Your task to perform on an android device: open chrome and create a bookmark for the current page Image 0: 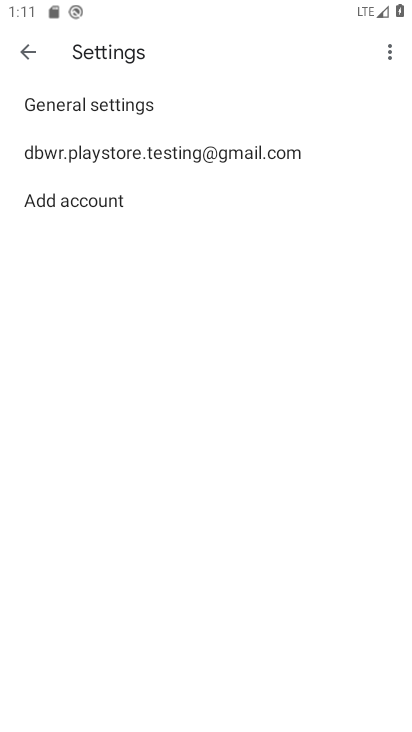
Step 0: press home button
Your task to perform on an android device: open chrome and create a bookmark for the current page Image 1: 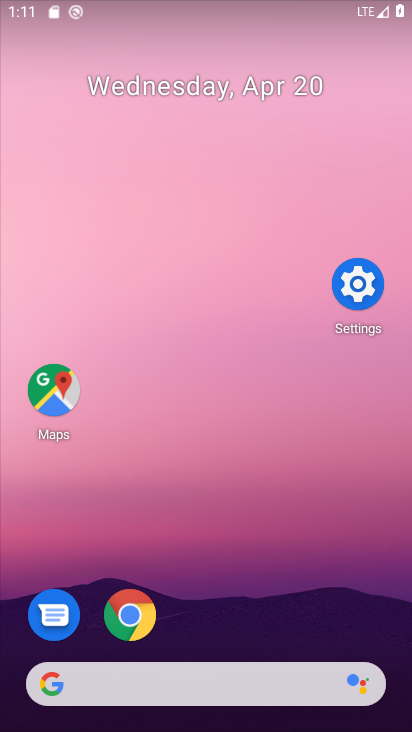
Step 1: click (133, 603)
Your task to perform on an android device: open chrome and create a bookmark for the current page Image 2: 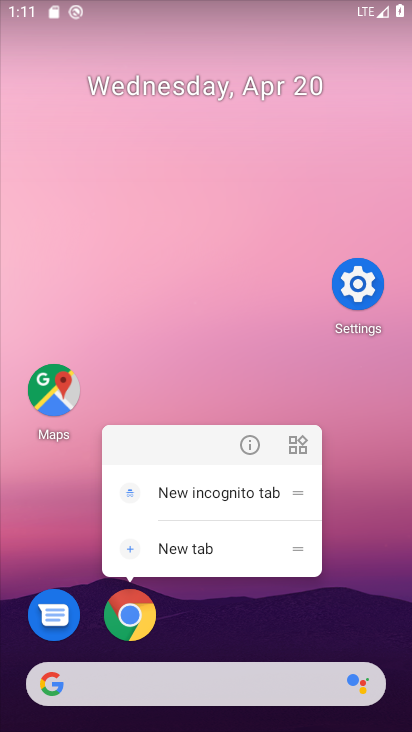
Step 2: click (248, 437)
Your task to perform on an android device: open chrome and create a bookmark for the current page Image 3: 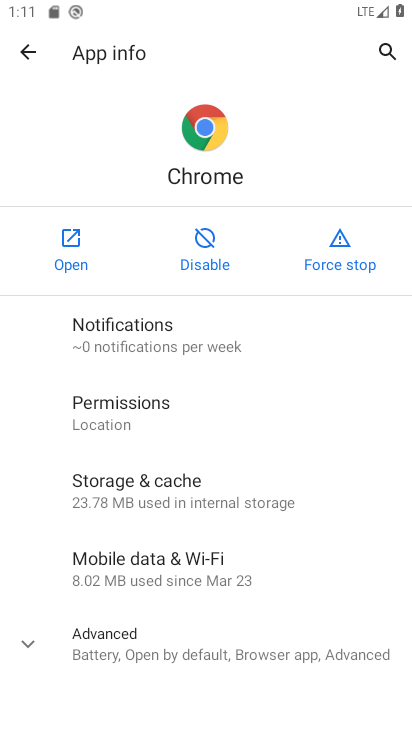
Step 3: click (83, 252)
Your task to perform on an android device: open chrome and create a bookmark for the current page Image 4: 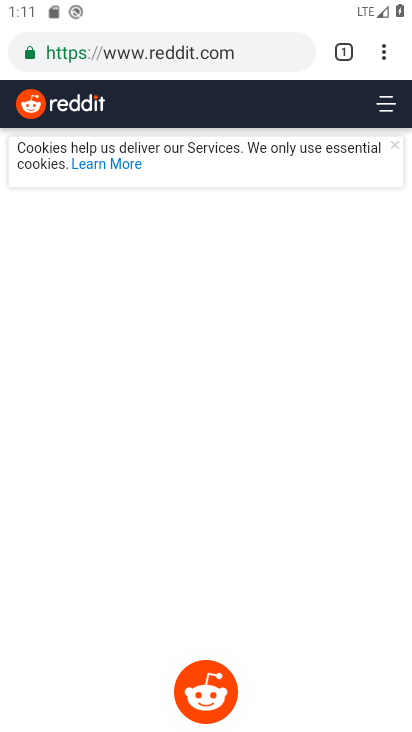
Step 4: click (386, 48)
Your task to perform on an android device: open chrome and create a bookmark for the current page Image 5: 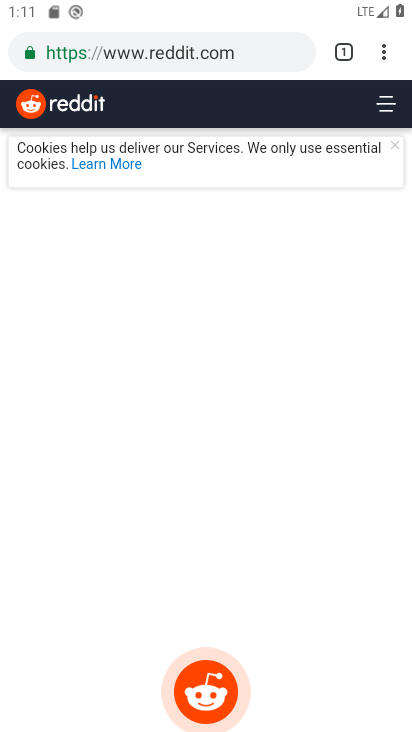
Step 5: click (391, 63)
Your task to perform on an android device: open chrome and create a bookmark for the current page Image 6: 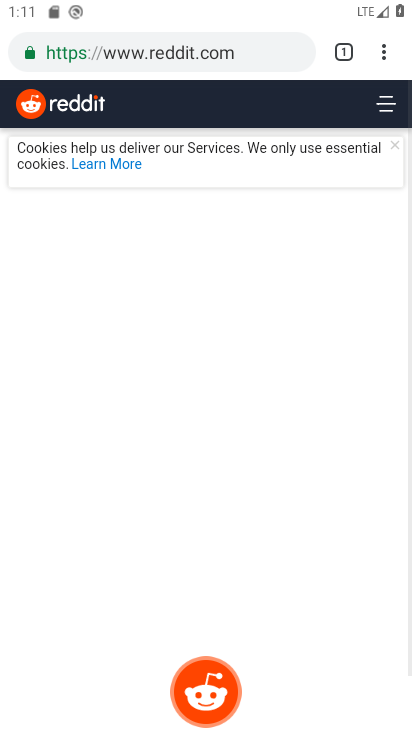
Step 6: click (391, 63)
Your task to perform on an android device: open chrome and create a bookmark for the current page Image 7: 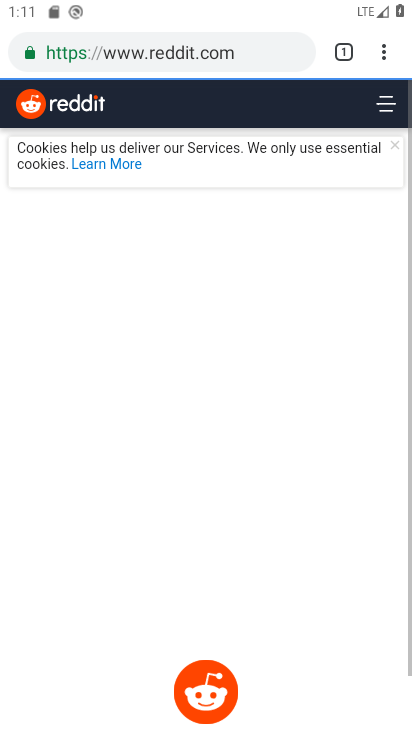
Step 7: drag from (387, 64) to (256, 314)
Your task to perform on an android device: open chrome and create a bookmark for the current page Image 8: 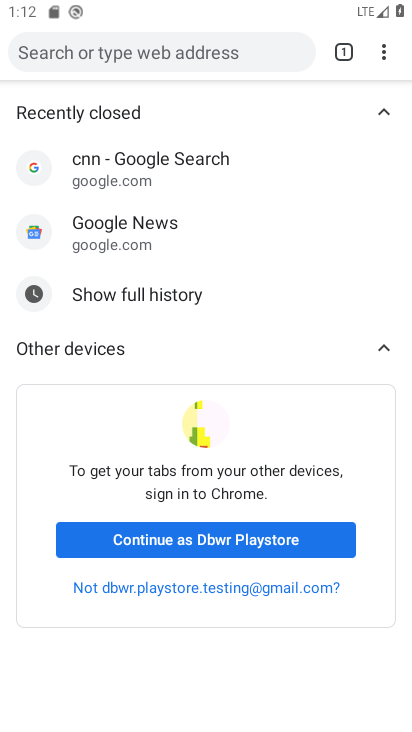
Step 8: click (380, 45)
Your task to perform on an android device: open chrome and create a bookmark for the current page Image 9: 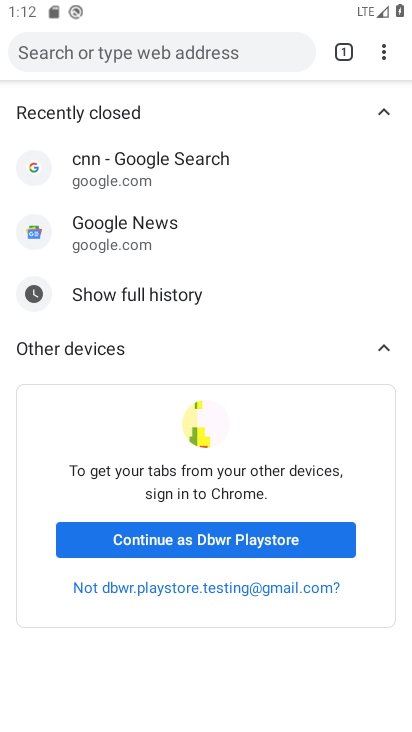
Step 9: task complete